Your task to perform on an android device: snooze an email in the gmail app Image 0: 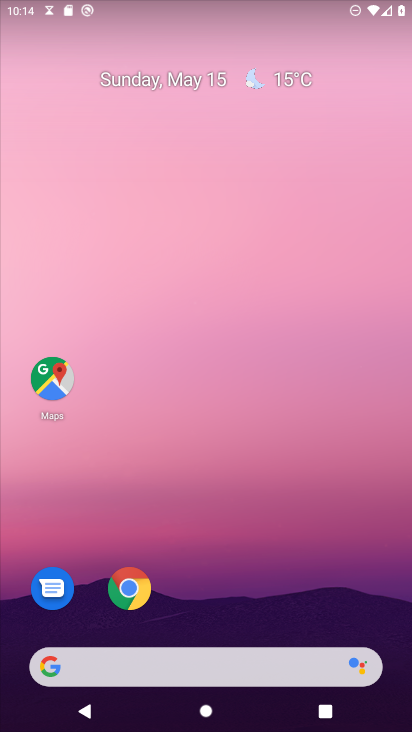
Step 0: drag from (326, 643) to (356, 92)
Your task to perform on an android device: snooze an email in the gmail app Image 1: 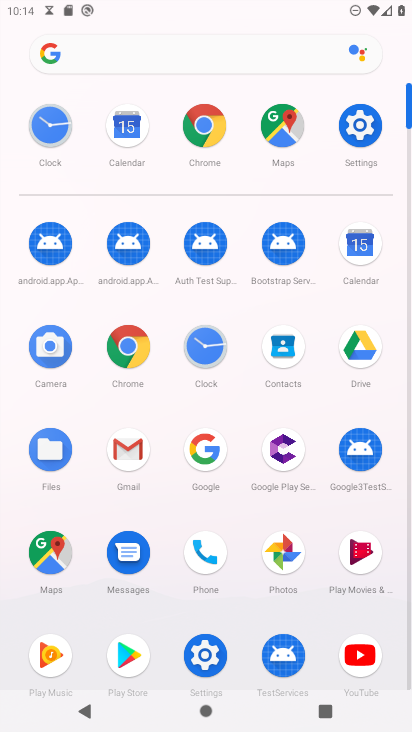
Step 1: click (150, 441)
Your task to perform on an android device: snooze an email in the gmail app Image 2: 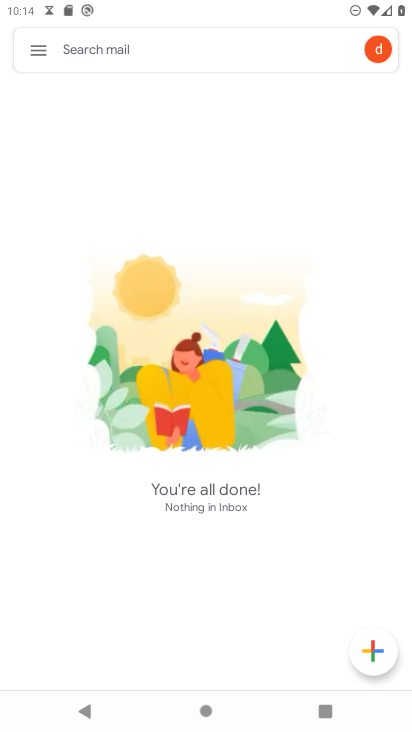
Step 2: click (45, 57)
Your task to perform on an android device: snooze an email in the gmail app Image 3: 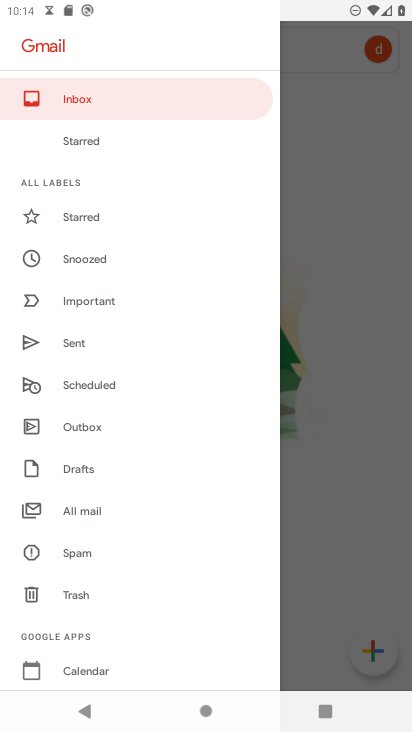
Step 3: click (82, 514)
Your task to perform on an android device: snooze an email in the gmail app Image 4: 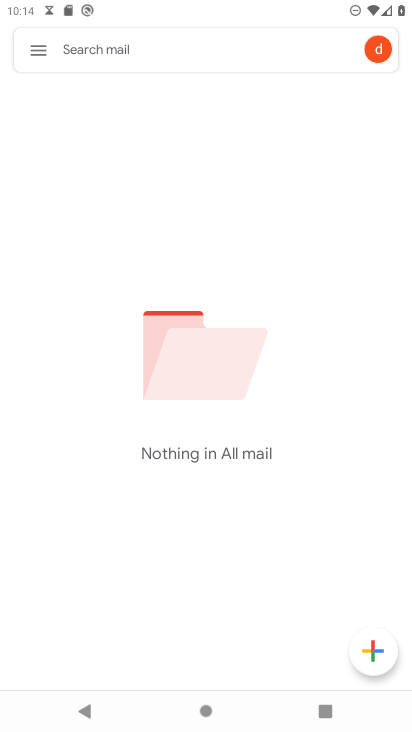
Step 4: task complete